Your task to perform on an android device: turn pop-ups on in chrome Image 0: 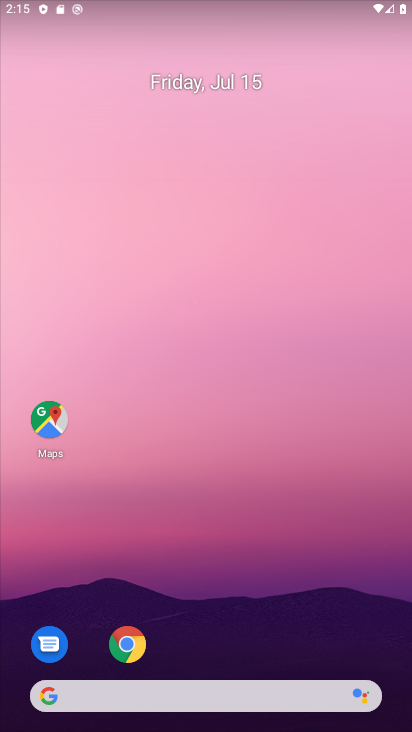
Step 0: drag from (316, 709) to (343, 1)
Your task to perform on an android device: turn pop-ups on in chrome Image 1: 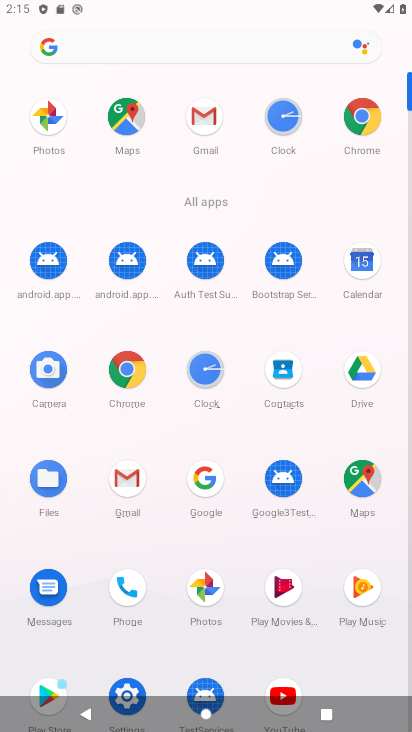
Step 1: click (134, 375)
Your task to perform on an android device: turn pop-ups on in chrome Image 2: 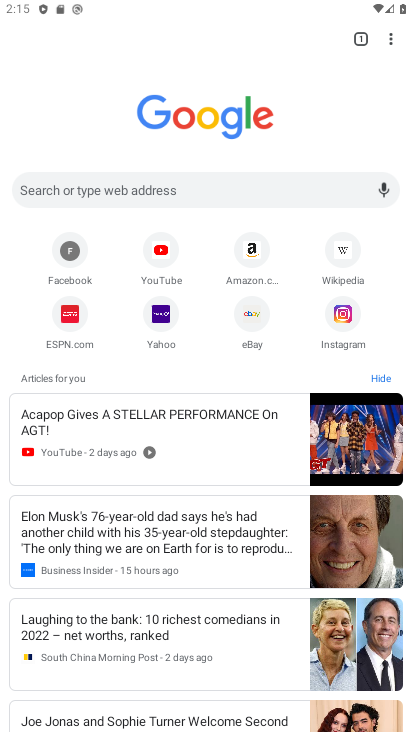
Step 2: click (390, 37)
Your task to perform on an android device: turn pop-ups on in chrome Image 3: 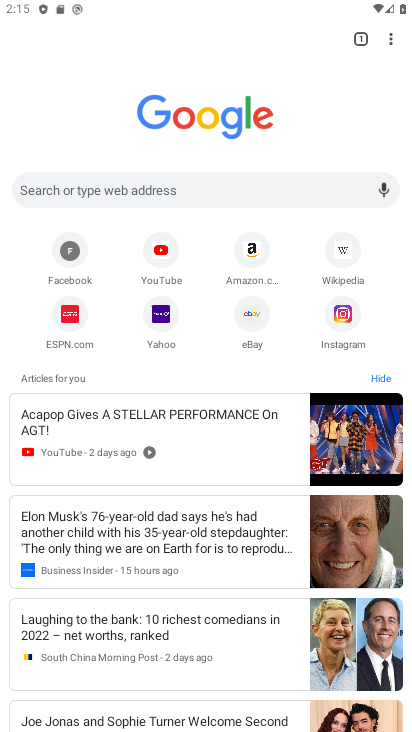
Step 3: drag from (388, 34) to (264, 327)
Your task to perform on an android device: turn pop-ups on in chrome Image 4: 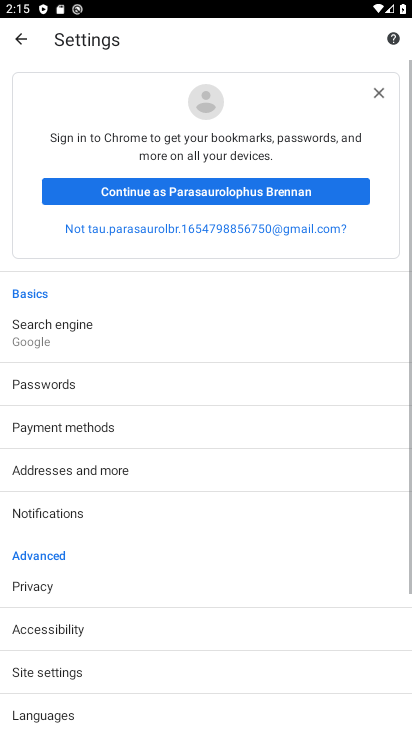
Step 4: drag from (91, 654) to (119, 184)
Your task to perform on an android device: turn pop-ups on in chrome Image 5: 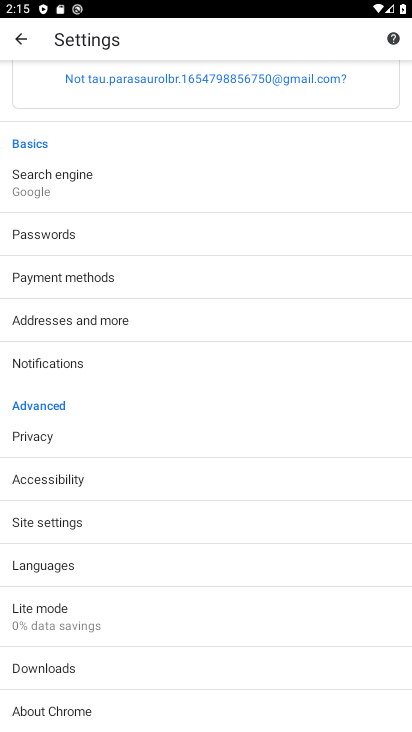
Step 5: click (81, 521)
Your task to perform on an android device: turn pop-ups on in chrome Image 6: 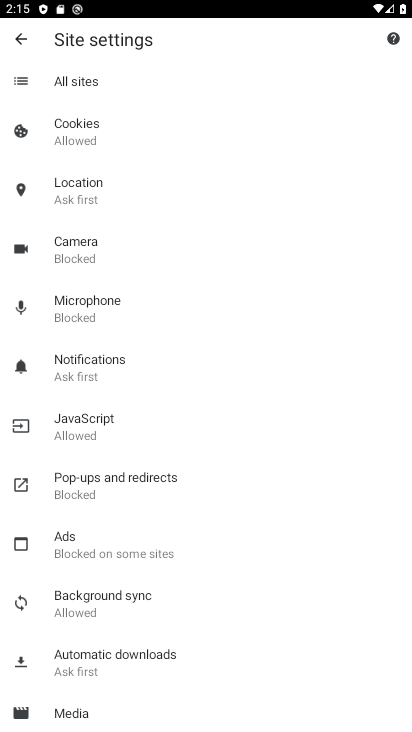
Step 6: click (174, 496)
Your task to perform on an android device: turn pop-ups on in chrome Image 7: 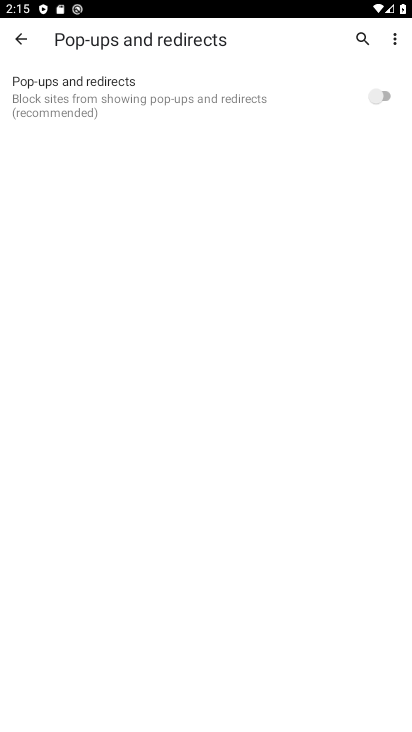
Step 7: click (384, 92)
Your task to perform on an android device: turn pop-ups on in chrome Image 8: 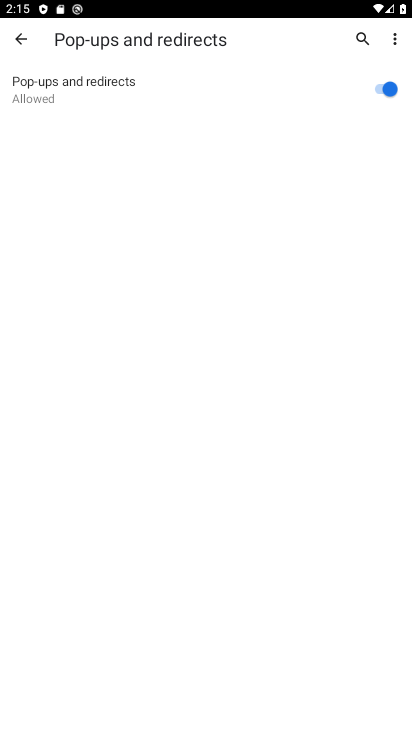
Step 8: task complete